Your task to perform on an android device: Turn on the flashlight Image 0: 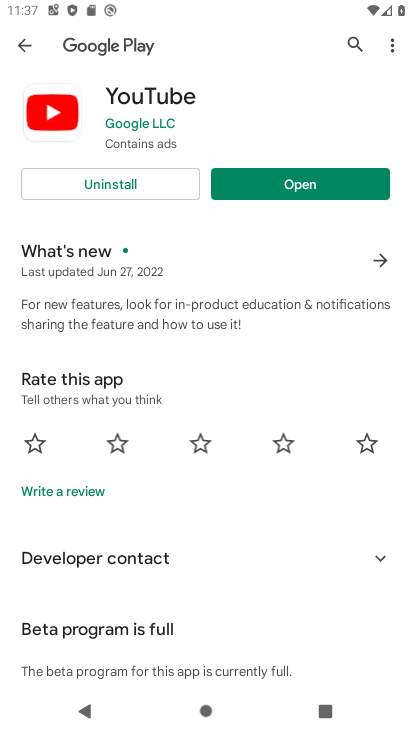
Step 0: press home button
Your task to perform on an android device: Turn on the flashlight Image 1: 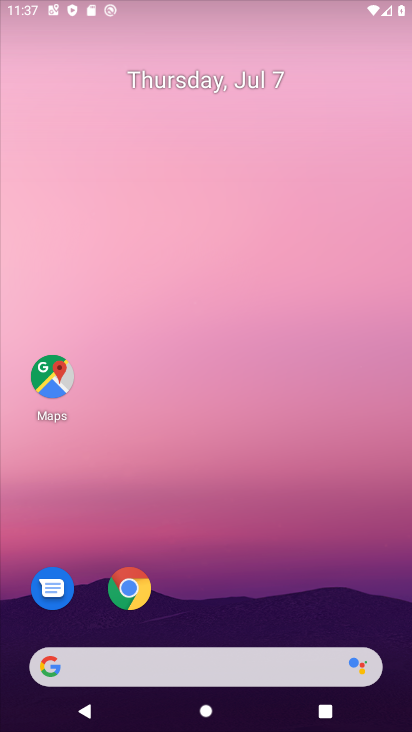
Step 1: drag from (238, 617) to (277, 128)
Your task to perform on an android device: Turn on the flashlight Image 2: 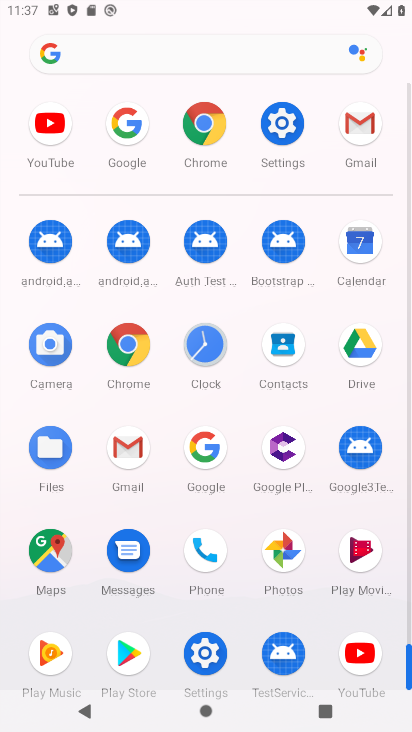
Step 2: click (280, 127)
Your task to perform on an android device: Turn on the flashlight Image 3: 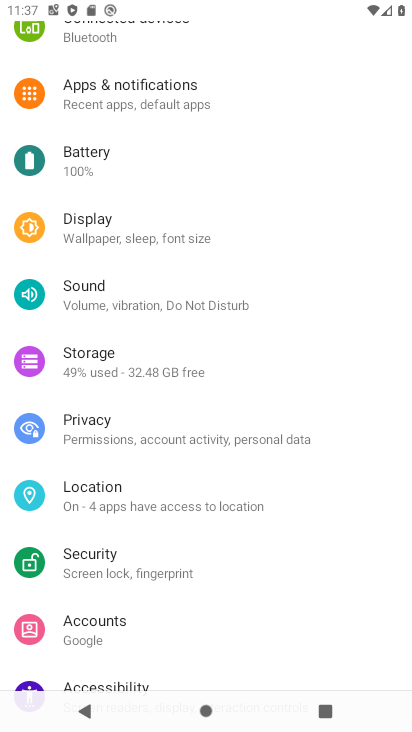
Step 3: drag from (155, 234) to (226, 175)
Your task to perform on an android device: Turn on the flashlight Image 4: 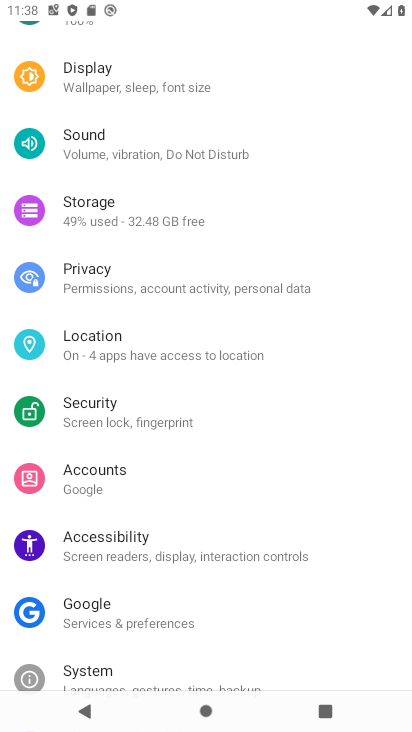
Step 4: drag from (219, 218) to (249, 642)
Your task to perform on an android device: Turn on the flashlight Image 5: 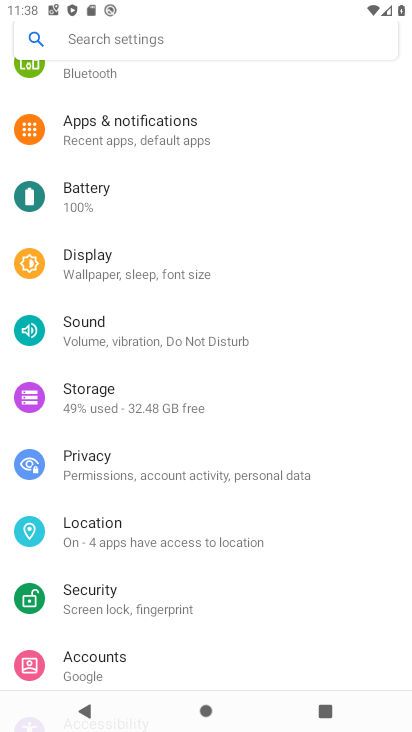
Step 5: click (202, 57)
Your task to perform on an android device: Turn on the flashlight Image 6: 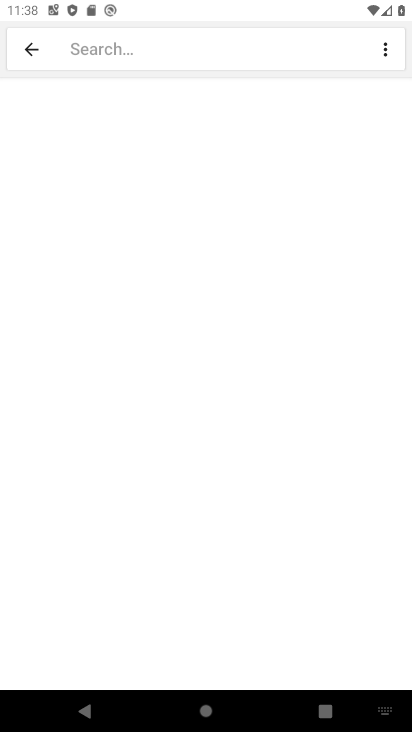
Step 6: type "flash"
Your task to perform on an android device: Turn on the flashlight Image 7: 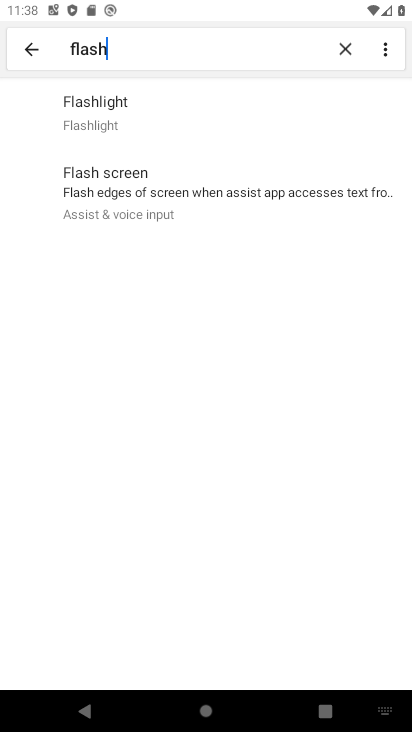
Step 7: task complete